Your task to perform on an android device: Search for pizza restaurants on Maps Image 0: 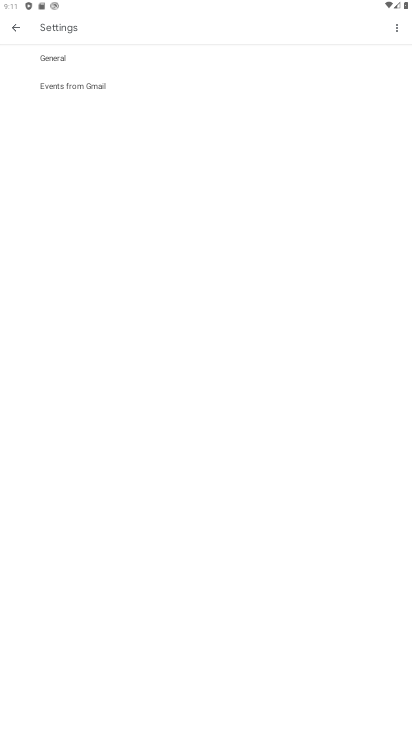
Step 0: press home button
Your task to perform on an android device: Search for pizza restaurants on Maps Image 1: 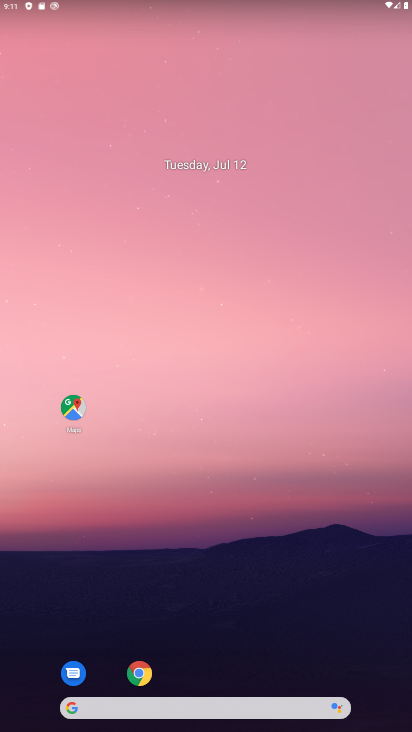
Step 1: click (69, 409)
Your task to perform on an android device: Search for pizza restaurants on Maps Image 2: 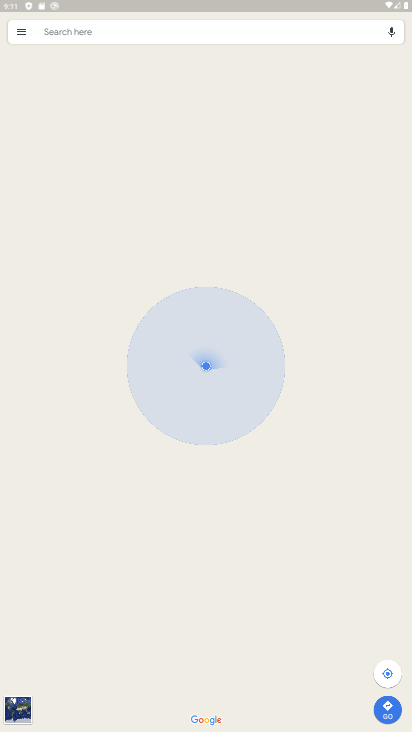
Step 2: click (128, 29)
Your task to perform on an android device: Search for pizza restaurants on Maps Image 3: 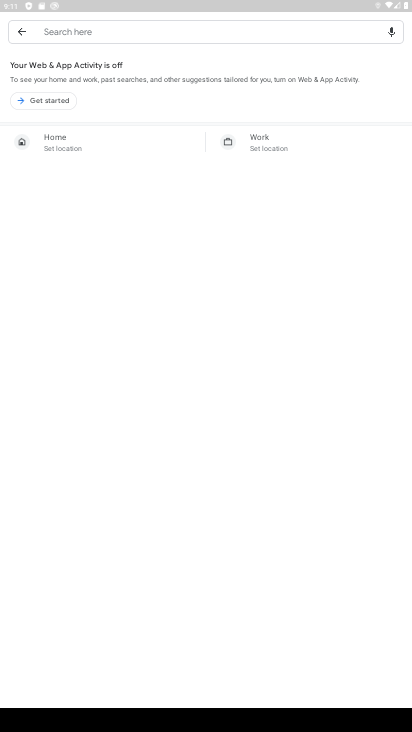
Step 3: click (142, 35)
Your task to perform on an android device: Search for pizza restaurants on Maps Image 4: 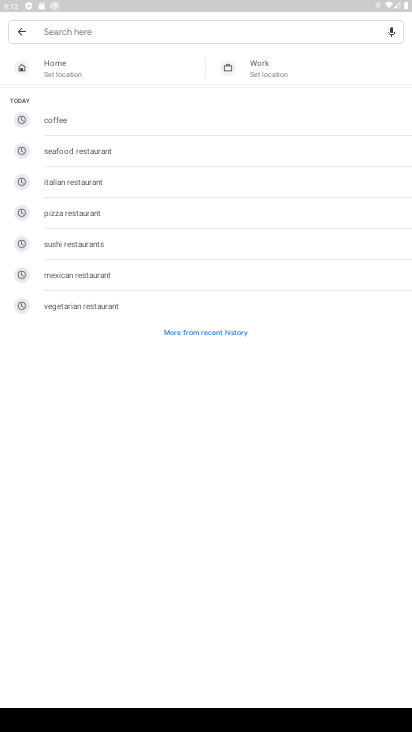
Step 4: click (94, 214)
Your task to perform on an android device: Search for pizza restaurants on Maps Image 5: 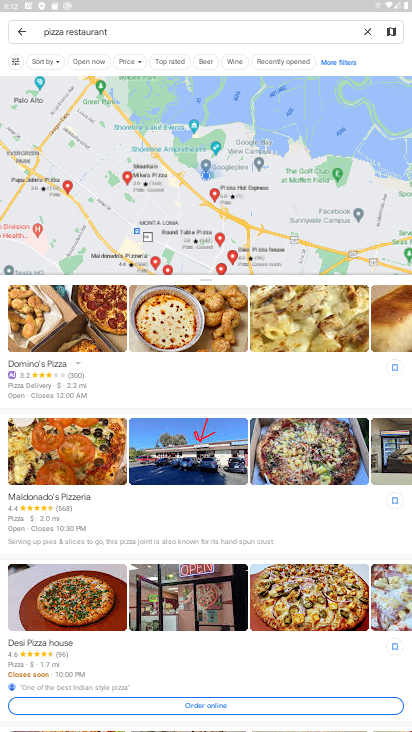
Step 5: task complete